Your task to perform on an android device: Open a new Chrome window Image 0: 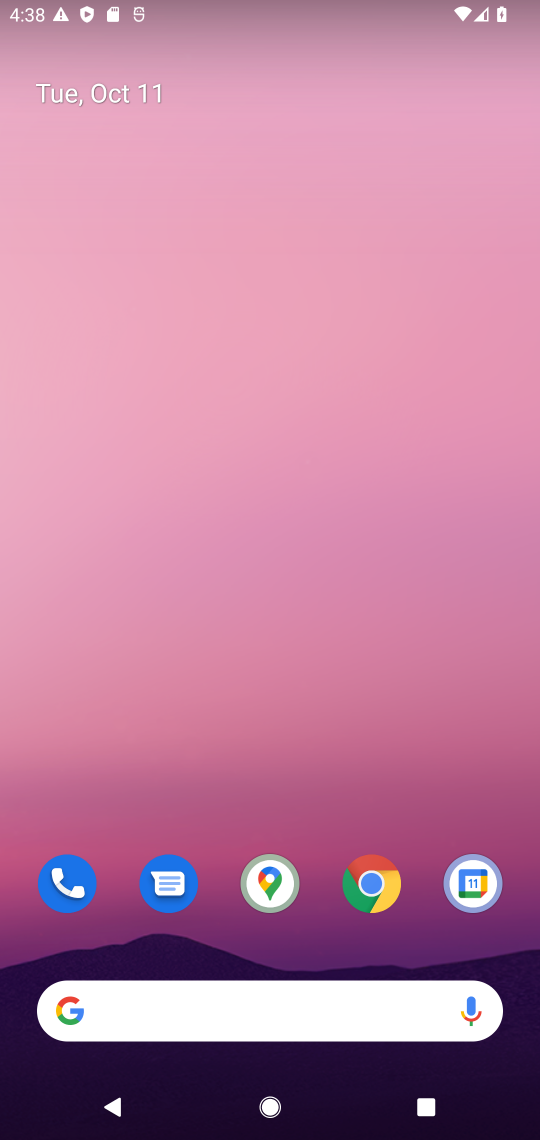
Step 0: drag from (311, 953) to (285, 44)
Your task to perform on an android device: Open a new Chrome window Image 1: 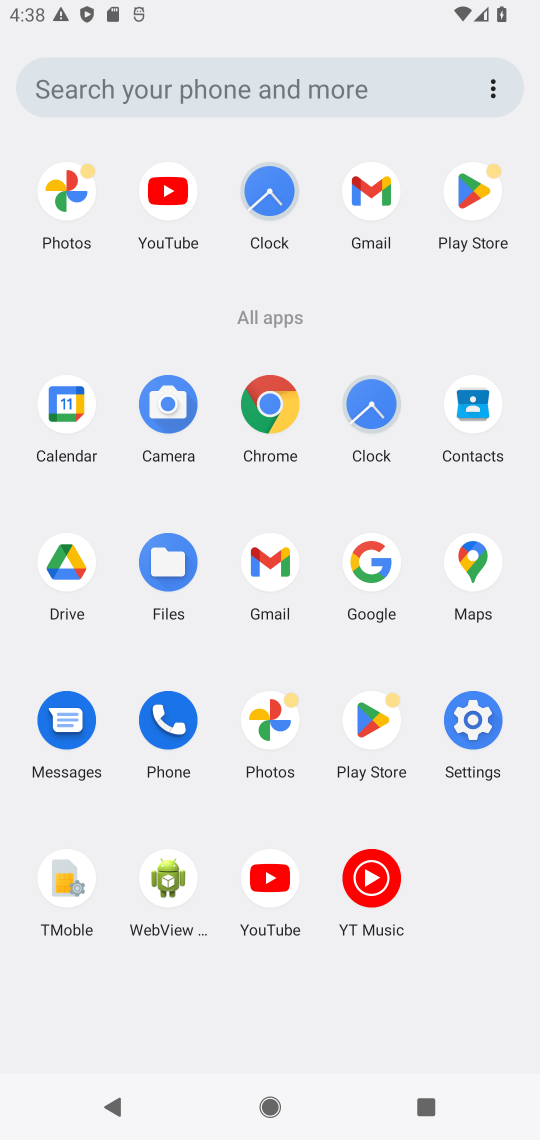
Step 1: click (275, 401)
Your task to perform on an android device: Open a new Chrome window Image 2: 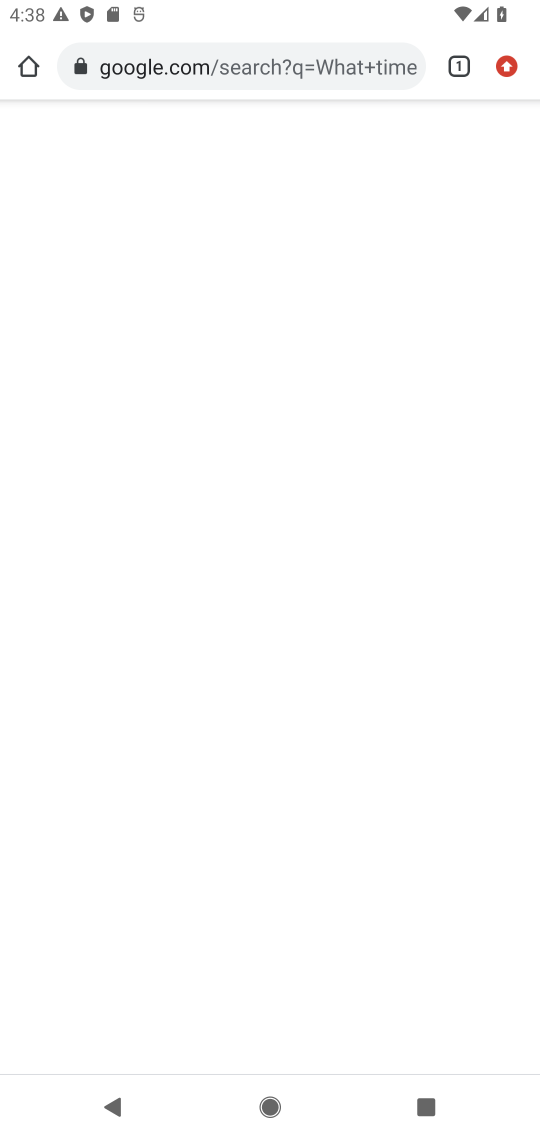
Step 2: task complete